Your task to perform on an android device: Go to battery settings Image 0: 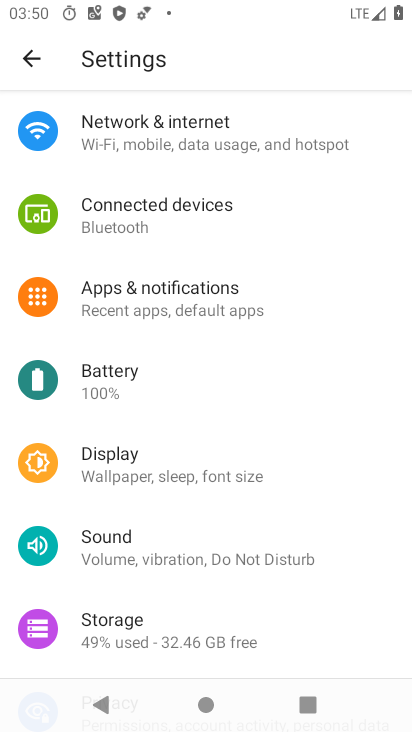
Step 0: click (109, 359)
Your task to perform on an android device: Go to battery settings Image 1: 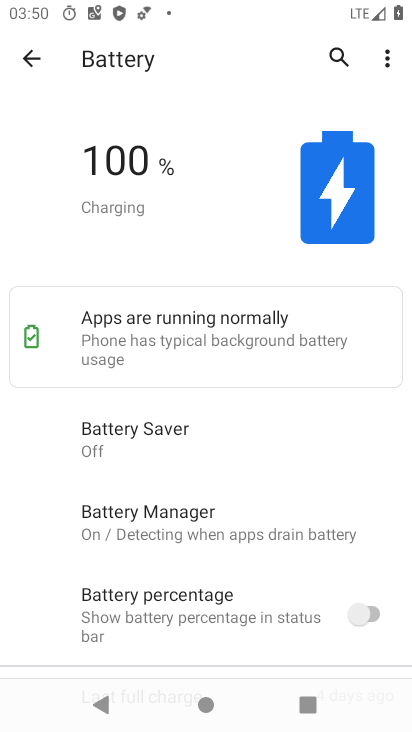
Step 1: task complete